Your task to perform on an android device: turn pop-ups off in chrome Image 0: 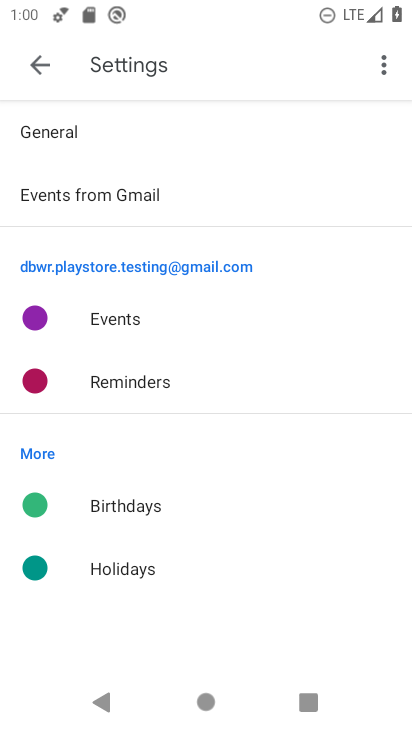
Step 0: press home button
Your task to perform on an android device: turn pop-ups off in chrome Image 1: 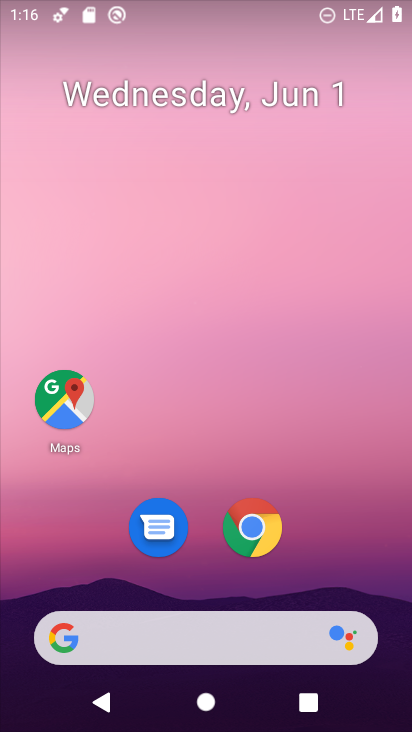
Step 1: click (256, 521)
Your task to perform on an android device: turn pop-ups off in chrome Image 2: 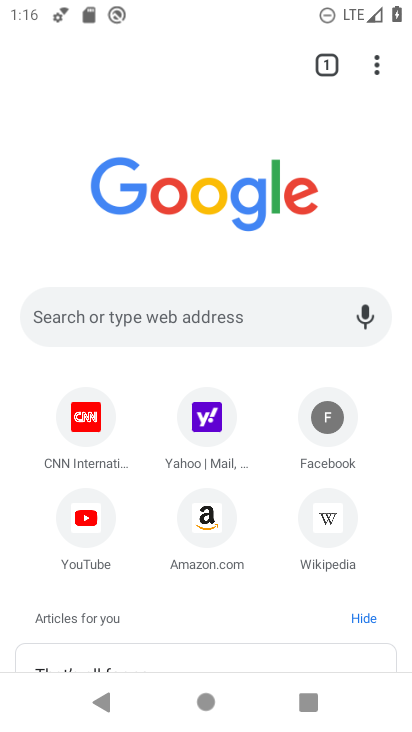
Step 2: click (370, 67)
Your task to perform on an android device: turn pop-ups off in chrome Image 3: 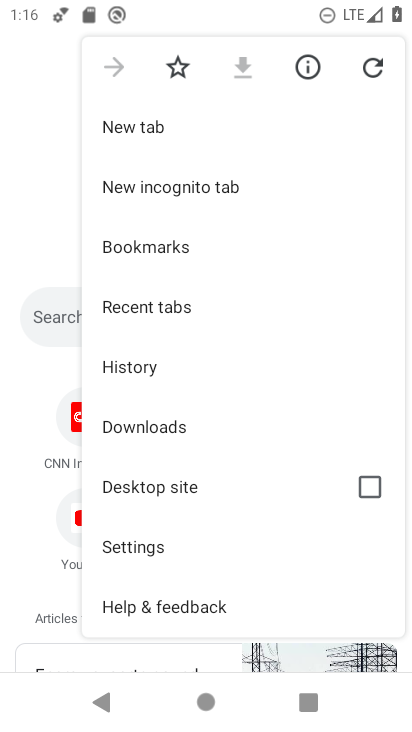
Step 3: click (173, 538)
Your task to perform on an android device: turn pop-ups off in chrome Image 4: 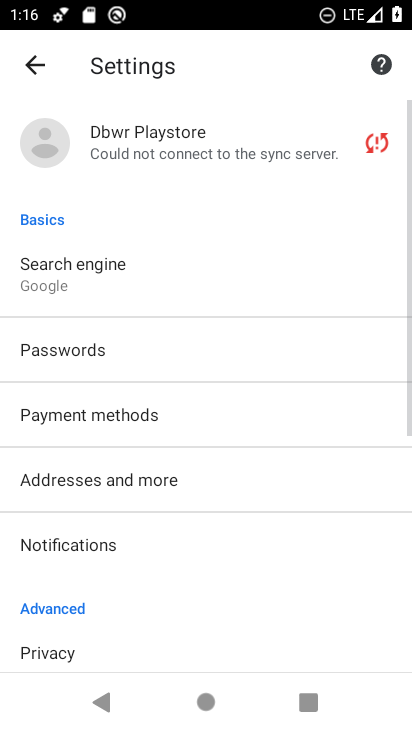
Step 4: drag from (109, 618) to (157, 156)
Your task to perform on an android device: turn pop-ups off in chrome Image 5: 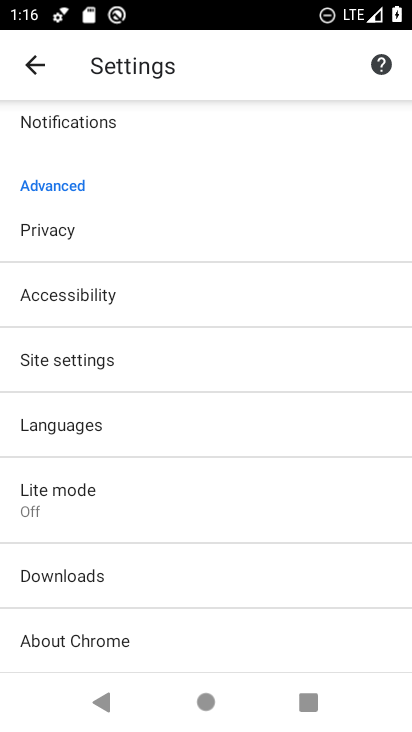
Step 5: click (137, 356)
Your task to perform on an android device: turn pop-ups off in chrome Image 6: 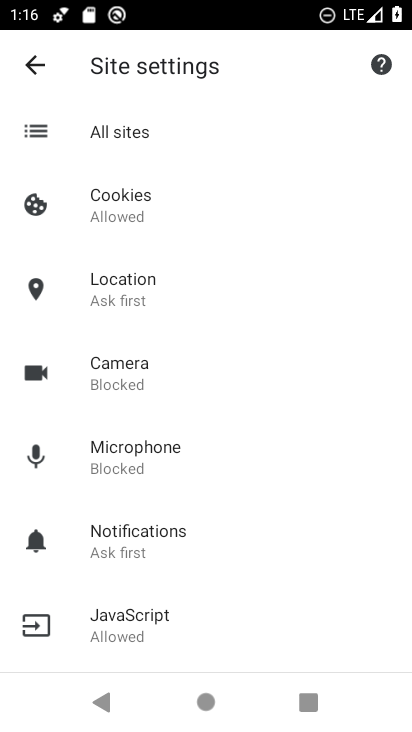
Step 6: drag from (275, 593) to (350, 59)
Your task to perform on an android device: turn pop-ups off in chrome Image 7: 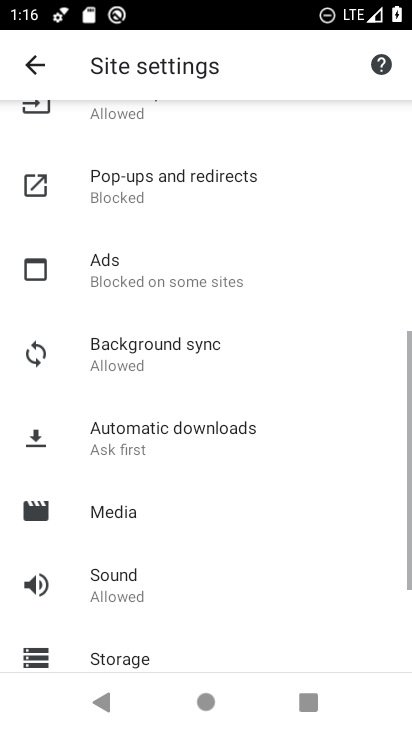
Step 7: click (237, 192)
Your task to perform on an android device: turn pop-ups off in chrome Image 8: 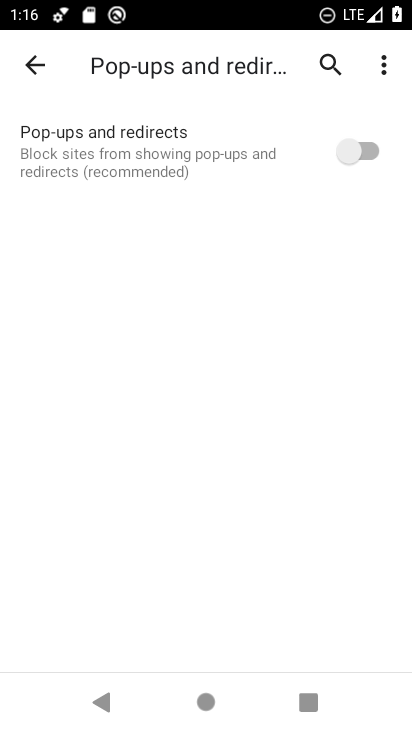
Step 8: task complete